Your task to perform on an android device: snooze an email in the gmail app Image 0: 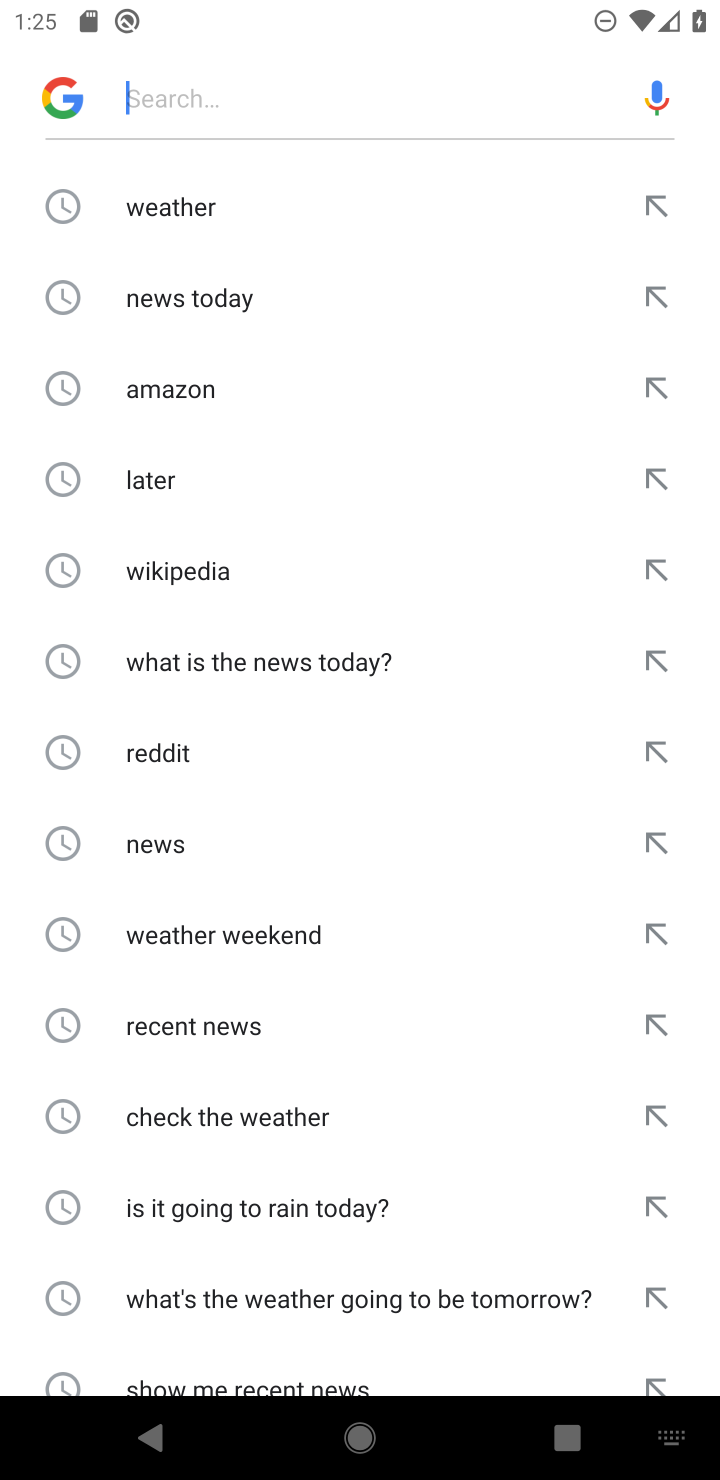
Step 0: press home button
Your task to perform on an android device: snooze an email in the gmail app Image 1: 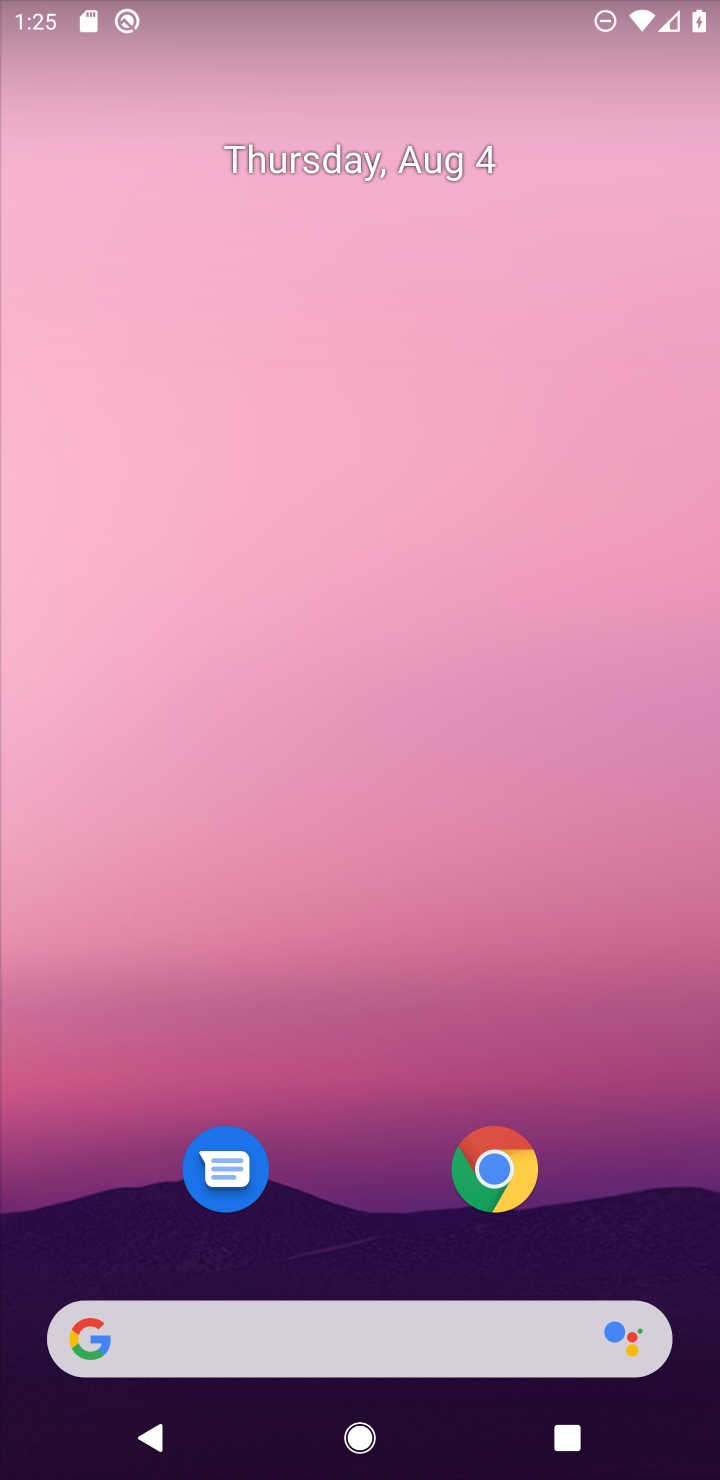
Step 1: drag from (370, 1048) to (456, 93)
Your task to perform on an android device: snooze an email in the gmail app Image 2: 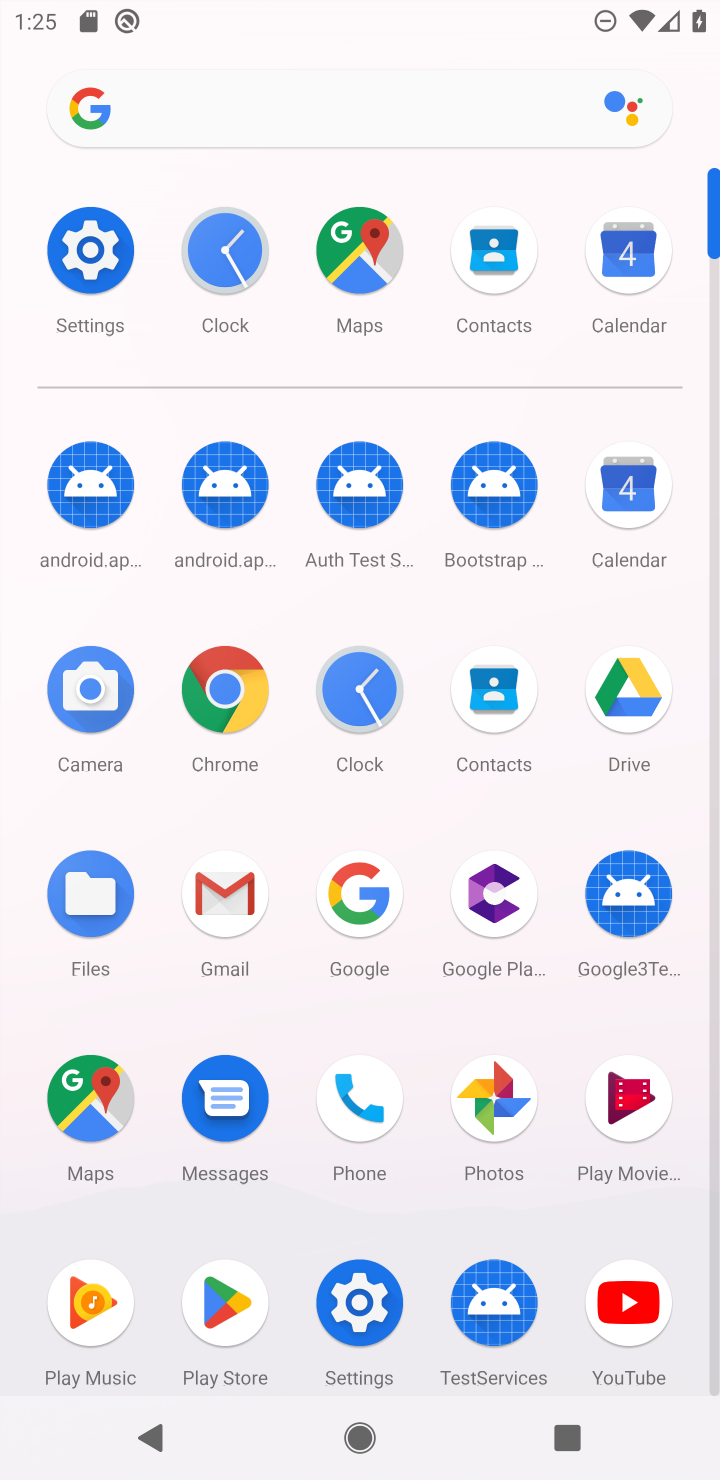
Step 2: click (214, 904)
Your task to perform on an android device: snooze an email in the gmail app Image 3: 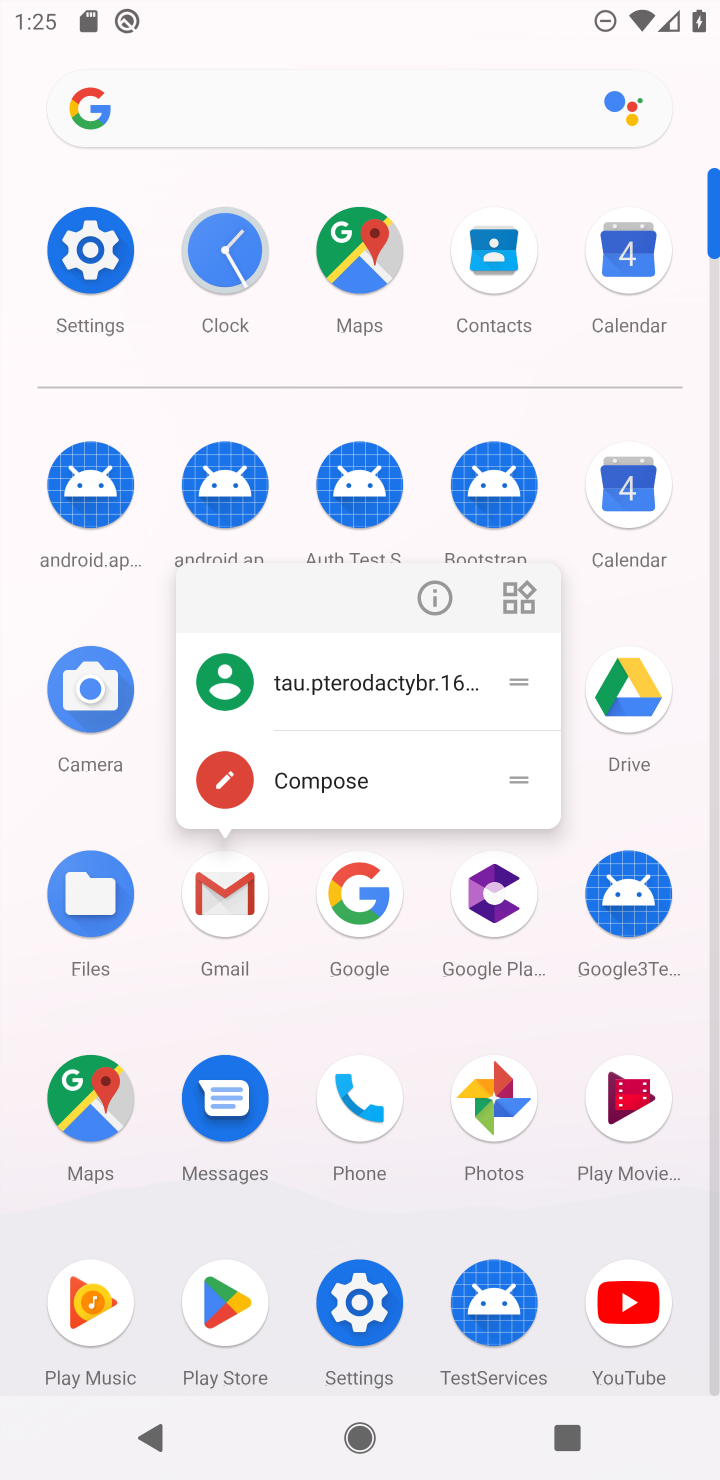
Step 3: click (214, 904)
Your task to perform on an android device: snooze an email in the gmail app Image 4: 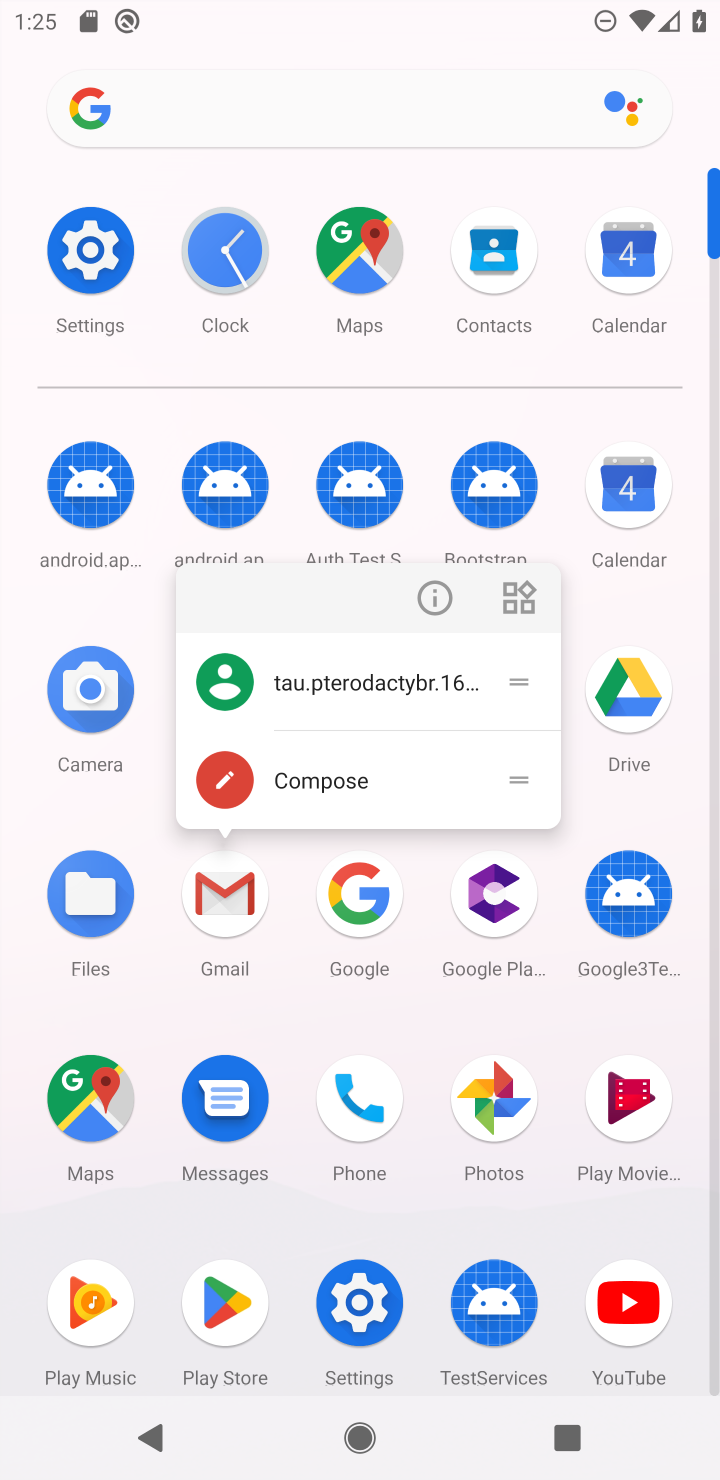
Step 4: click (214, 904)
Your task to perform on an android device: snooze an email in the gmail app Image 5: 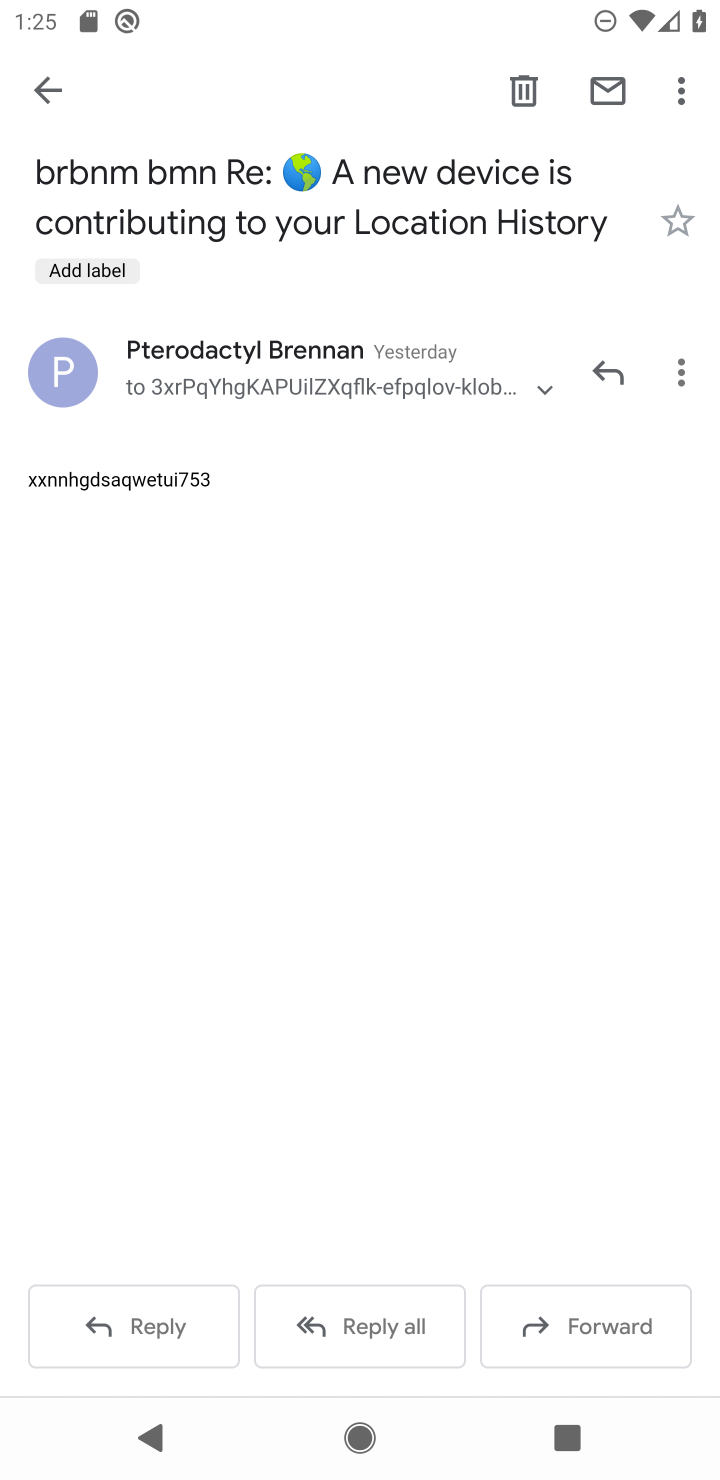
Step 5: click (680, 95)
Your task to perform on an android device: snooze an email in the gmail app Image 6: 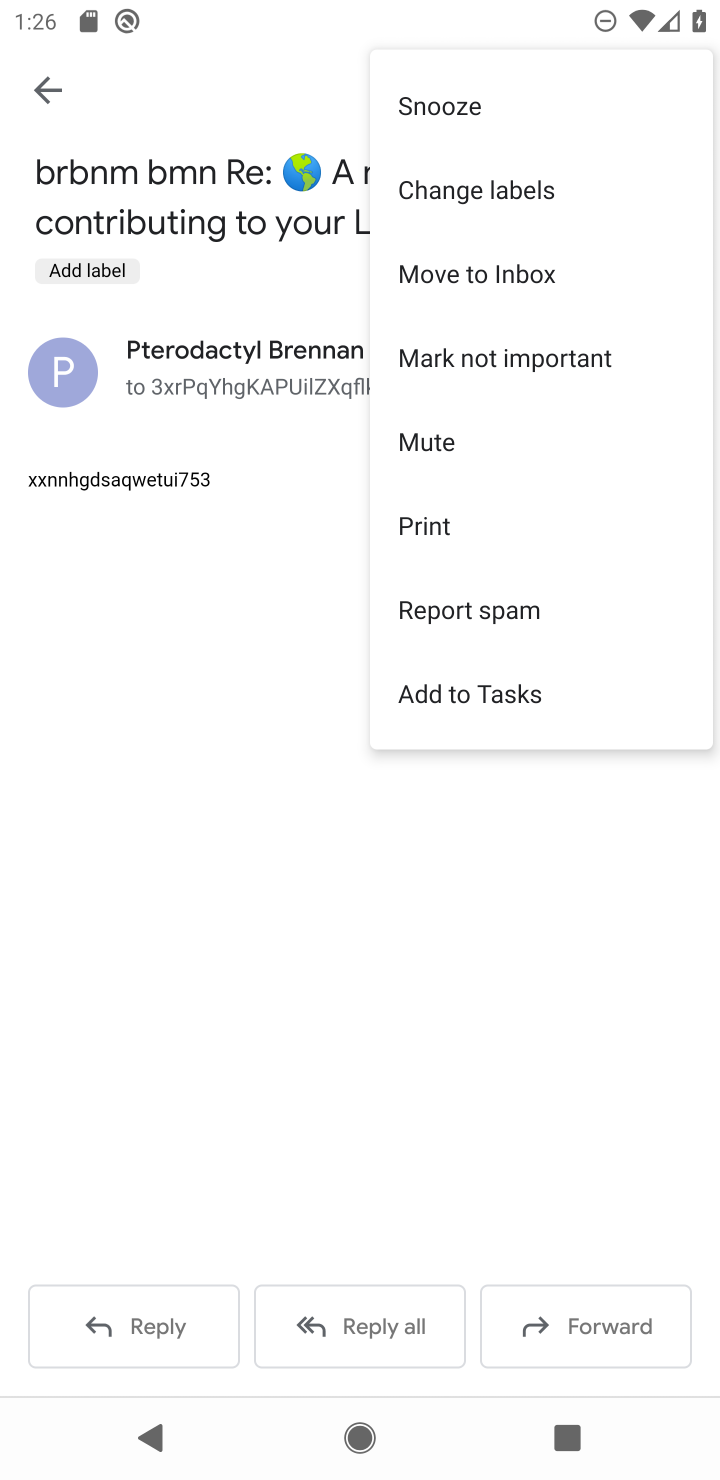
Step 6: click (451, 103)
Your task to perform on an android device: snooze an email in the gmail app Image 7: 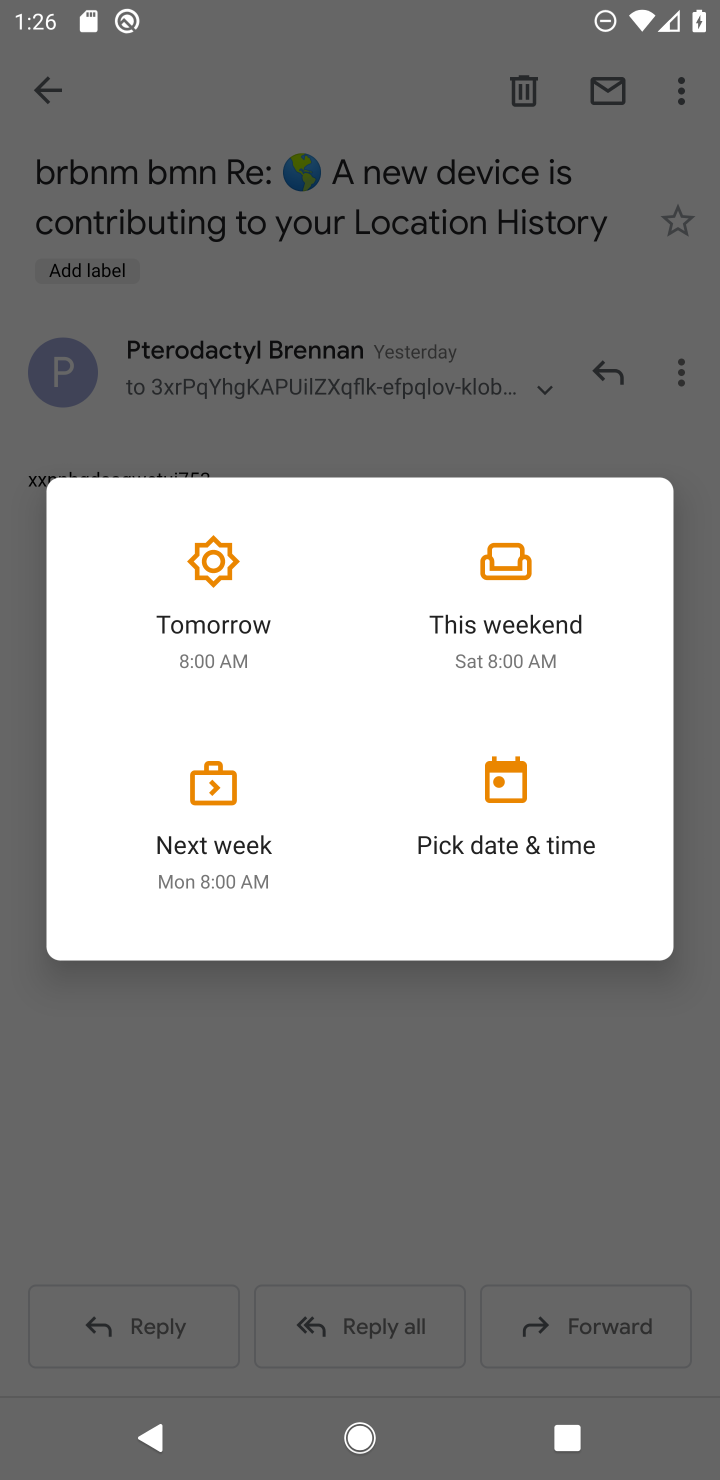
Step 7: click (199, 586)
Your task to perform on an android device: snooze an email in the gmail app Image 8: 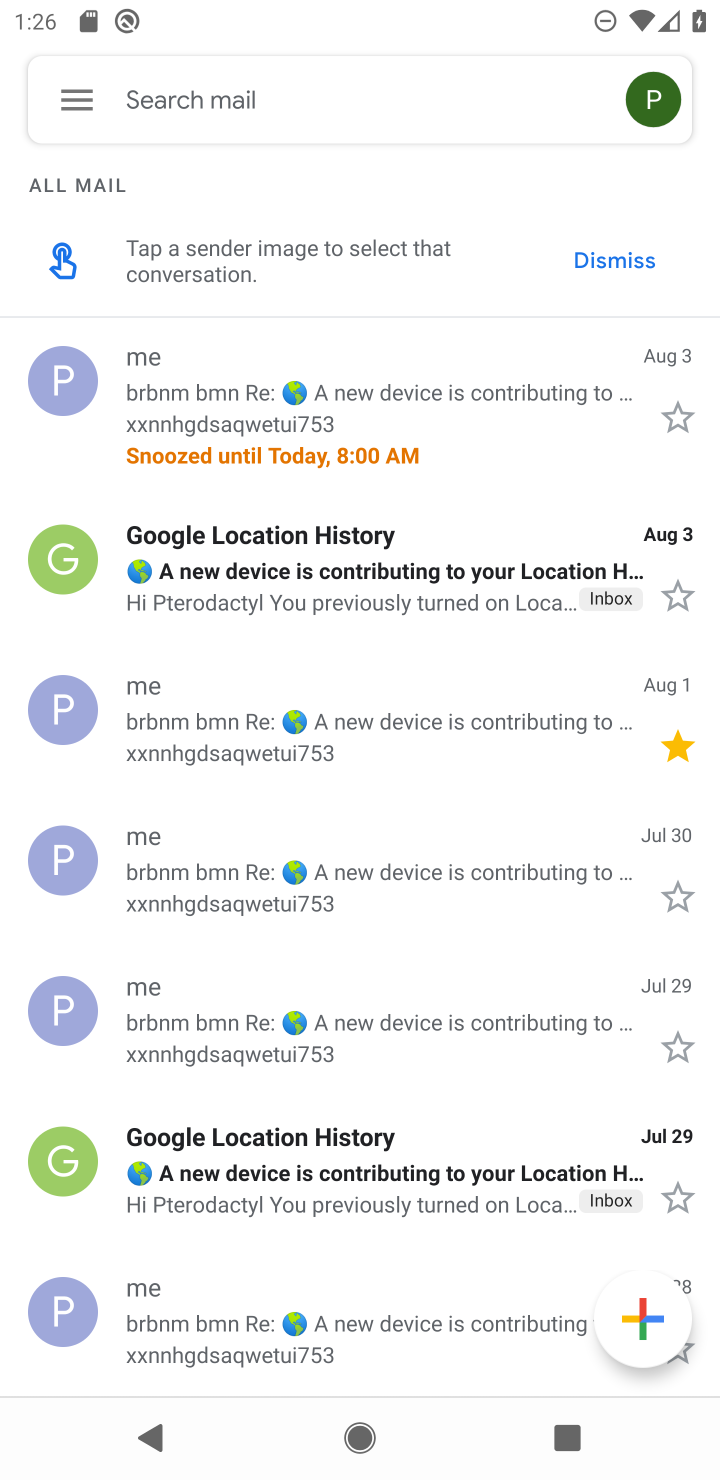
Step 8: task complete